Your task to perform on an android device: turn off notifications in google photos Image 0: 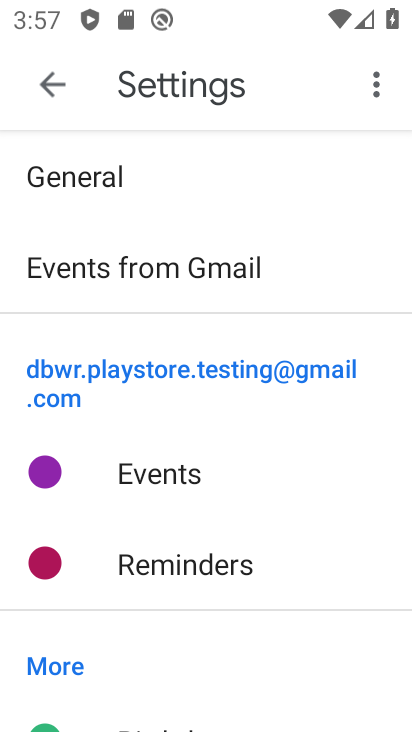
Step 0: press back button
Your task to perform on an android device: turn off notifications in google photos Image 1: 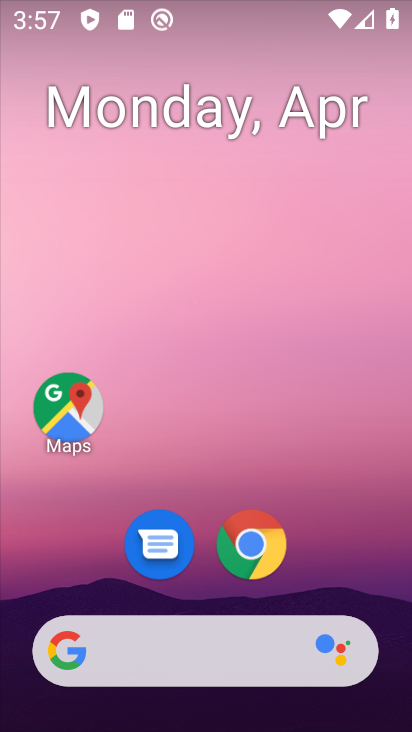
Step 1: drag from (87, 612) to (231, 195)
Your task to perform on an android device: turn off notifications in google photos Image 2: 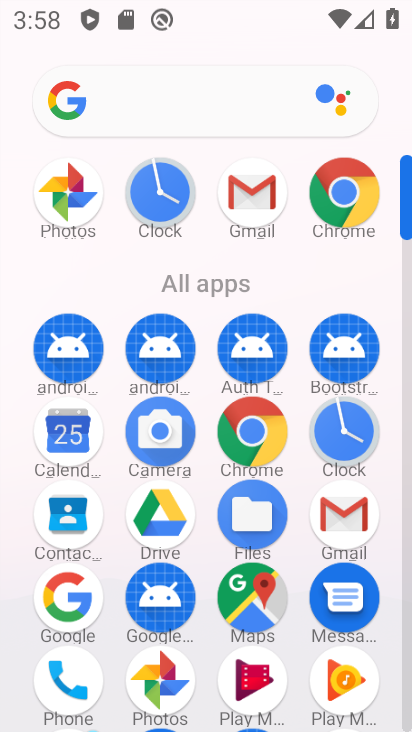
Step 2: click (169, 683)
Your task to perform on an android device: turn off notifications in google photos Image 3: 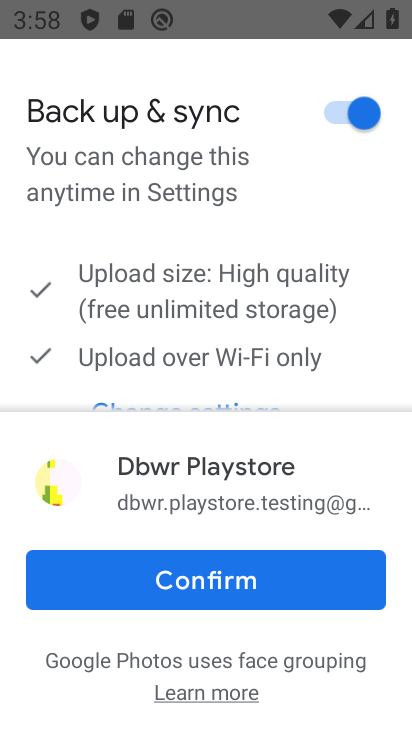
Step 3: click (232, 592)
Your task to perform on an android device: turn off notifications in google photos Image 4: 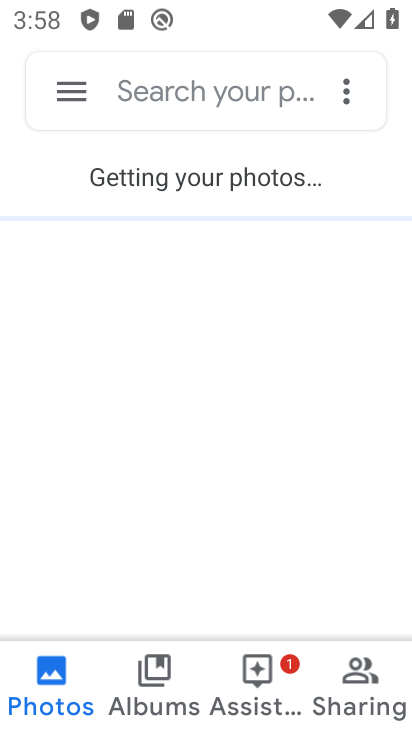
Step 4: click (71, 95)
Your task to perform on an android device: turn off notifications in google photos Image 5: 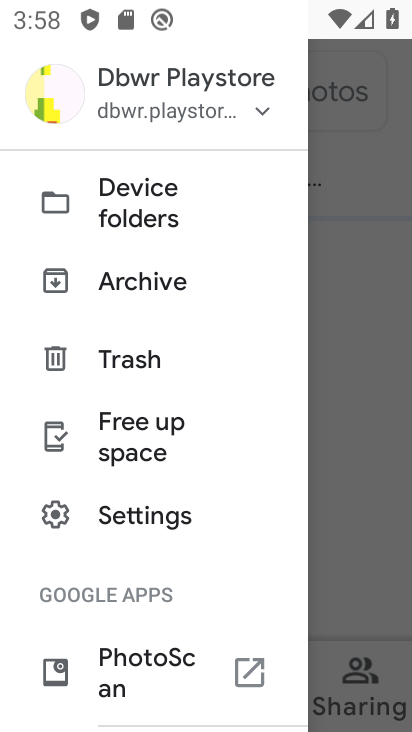
Step 5: drag from (150, 609) to (211, 289)
Your task to perform on an android device: turn off notifications in google photos Image 6: 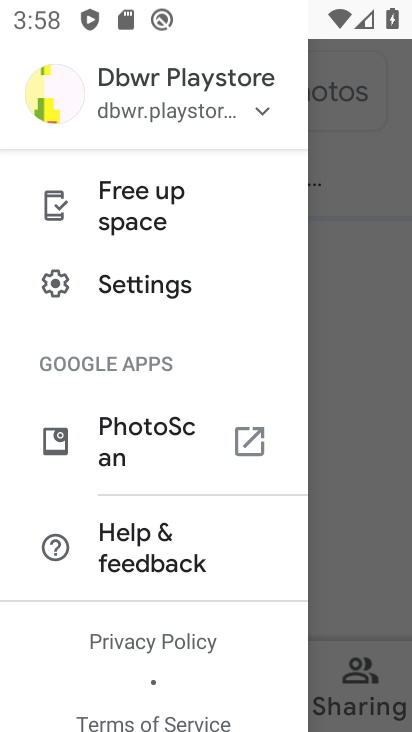
Step 6: click (196, 298)
Your task to perform on an android device: turn off notifications in google photos Image 7: 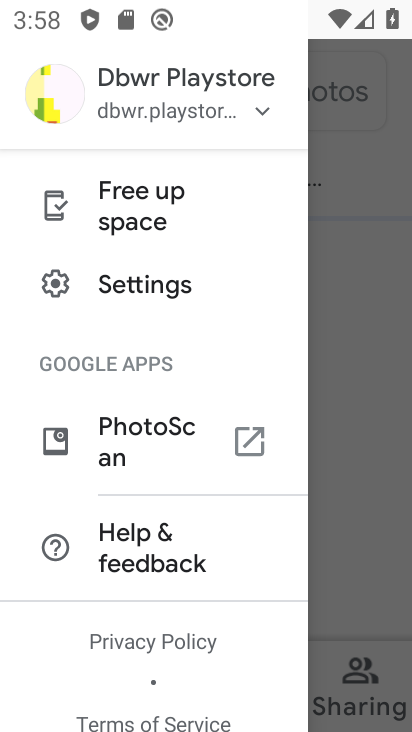
Step 7: click (204, 290)
Your task to perform on an android device: turn off notifications in google photos Image 8: 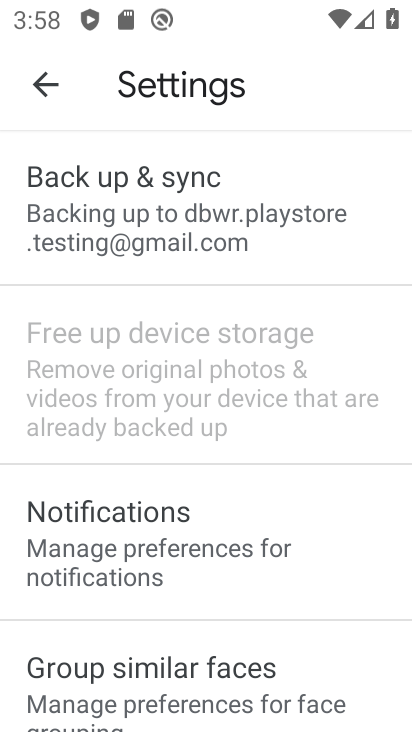
Step 8: drag from (200, 599) to (246, 307)
Your task to perform on an android device: turn off notifications in google photos Image 9: 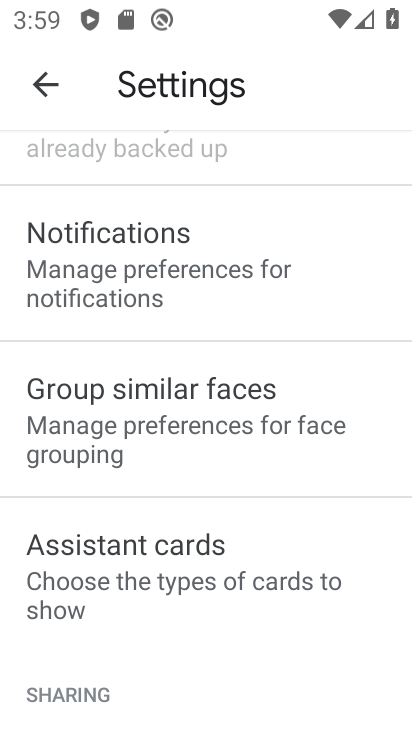
Step 9: click (232, 269)
Your task to perform on an android device: turn off notifications in google photos Image 10: 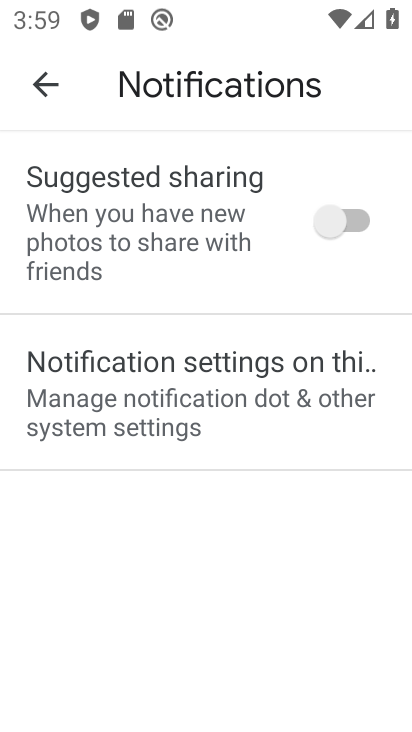
Step 10: click (251, 421)
Your task to perform on an android device: turn off notifications in google photos Image 11: 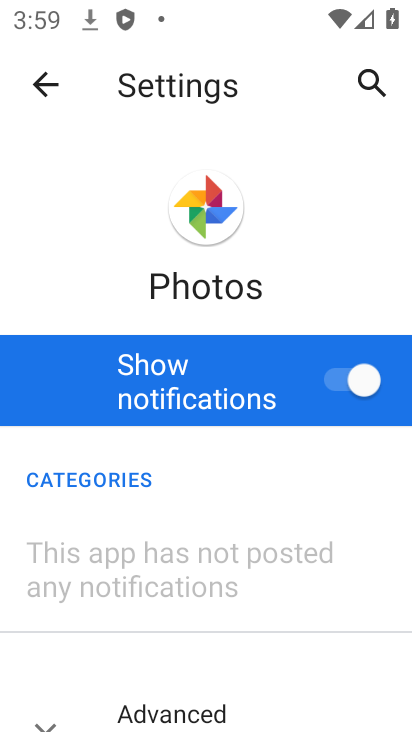
Step 11: click (347, 382)
Your task to perform on an android device: turn off notifications in google photos Image 12: 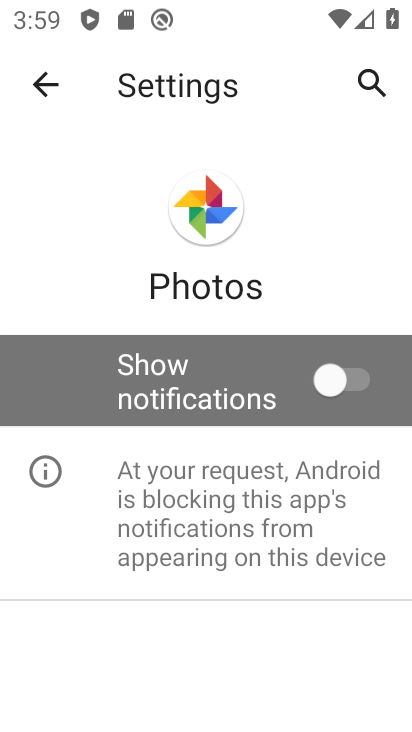
Step 12: task complete